Your task to perform on an android device: What's the weather today? Image 0: 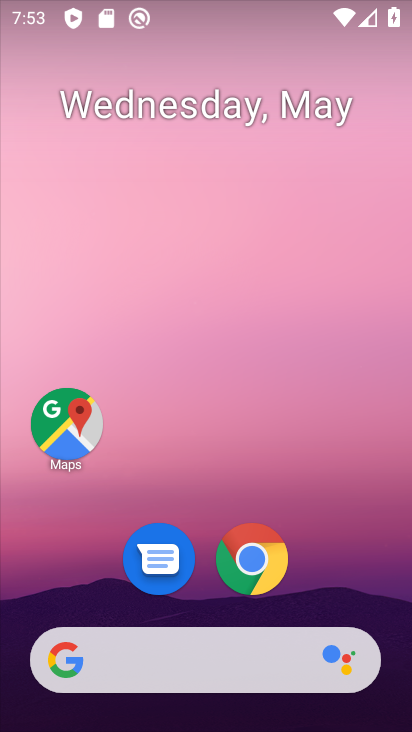
Step 0: drag from (334, 563) to (322, 69)
Your task to perform on an android device: What's the weather today? Image 1: 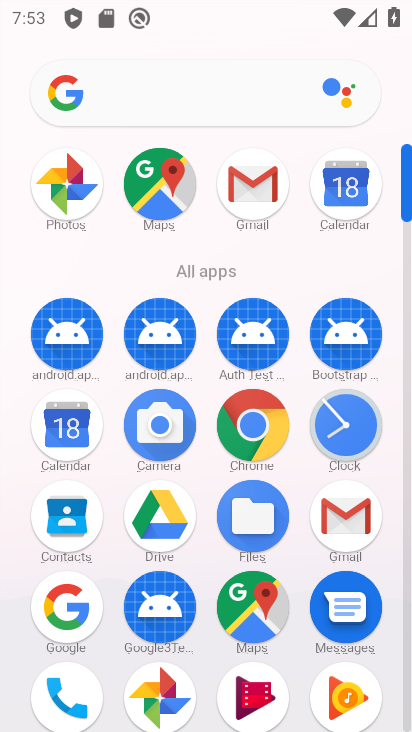
Step 1: click (59, 611)
Your task to perform on an android device: What's the weather today? Image 2: 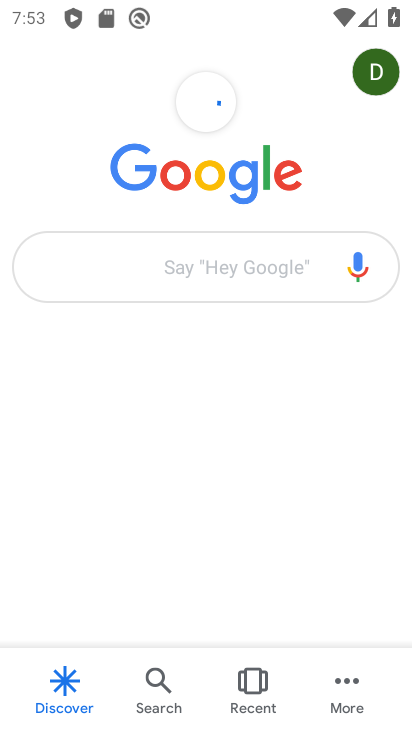
Step 2: click (143, 259)
Your task to perform on an android device: What's the weather today? Image 3: 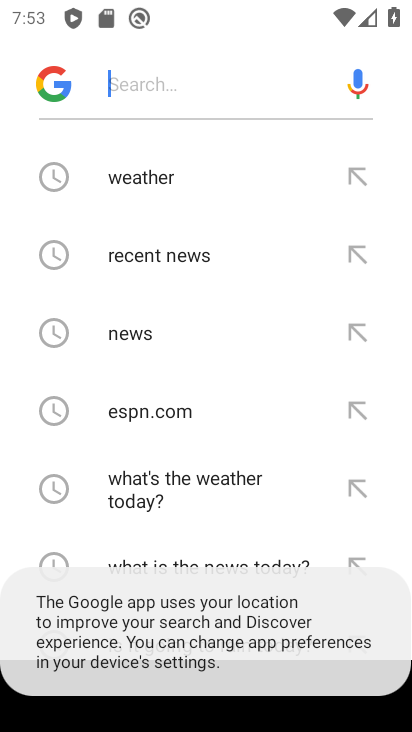
Step 3: click (128, 189)
Your task to perform on an android device: What's the weather today? Image 4: 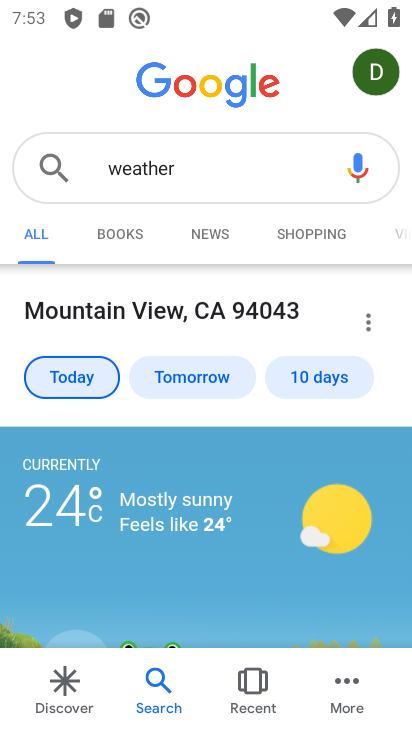
Step 4: task complete